Your task to perform on an android device: What's the weather going to be tomorrow? Image 0: 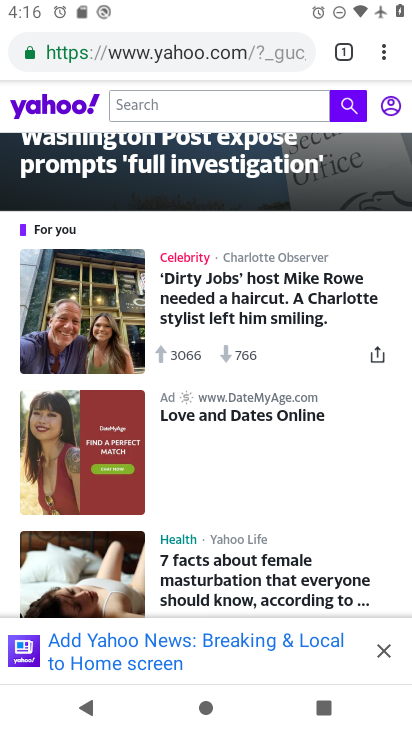
Step 0: press home button
Your task to perform on an android device: What's the weather going to be tomorrow? Image 1: 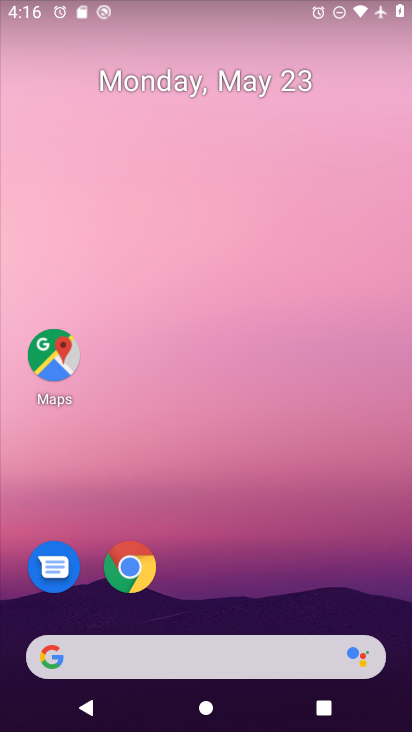
Step 1: click (184, 652)
Your task to perform on an android device: What's the weather going to be tomorrow? Image 2: 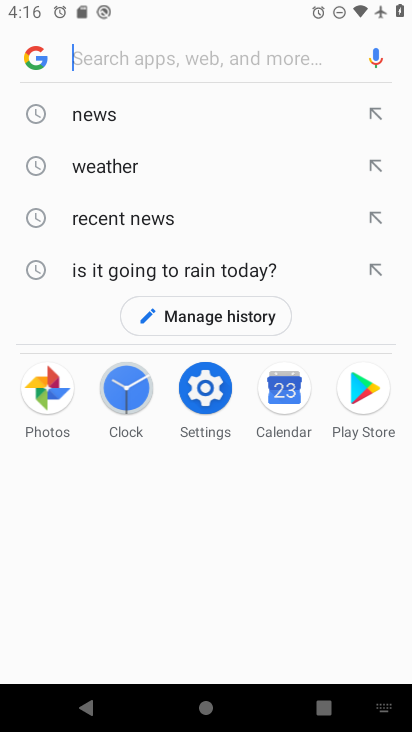
Step 2: click (118, 172)
Your task to perform on an android device: What's the weather going to be tomorrow? Image 3: 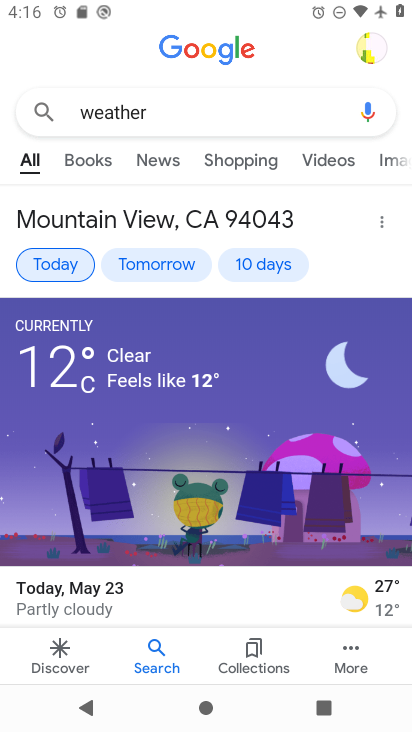
Step 3: click (149, 272)
Your task to perform on an android device: What's the weather going to be tomorrow? Image 4: 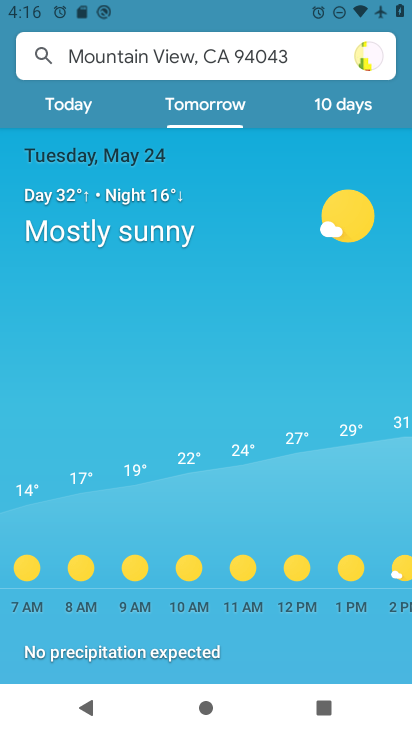
Step 4: task complete